Your task to perform on an android device: open a new tab in the chrome app Image 0: 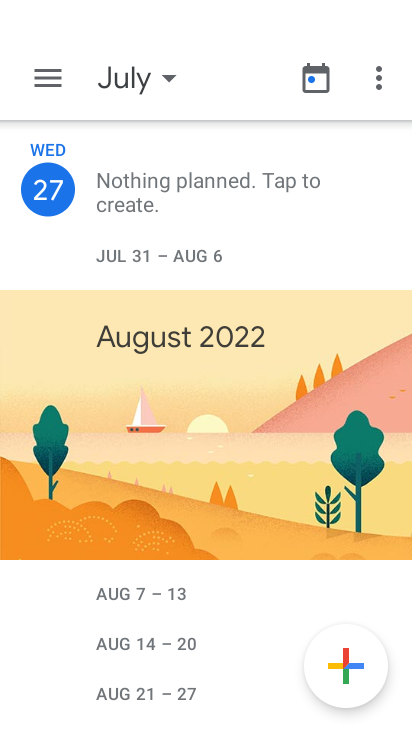
Step 0: press back button
Your task to perform on an android device: open a new tab in the chrome app Image 1: 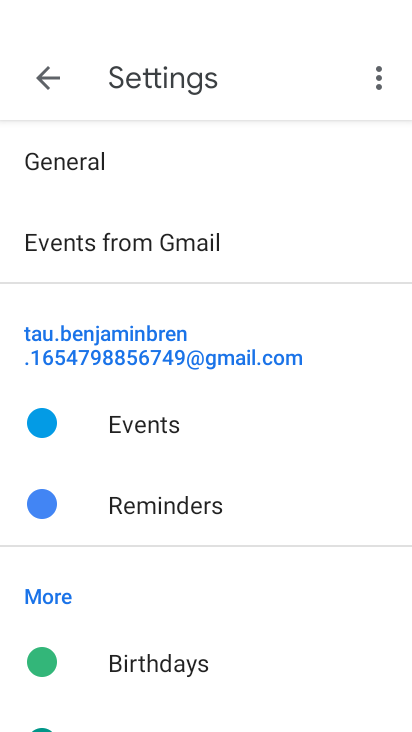
Step 1: press back button
Your task to perform on an android device: open a new tab in the chrome app Image 2: 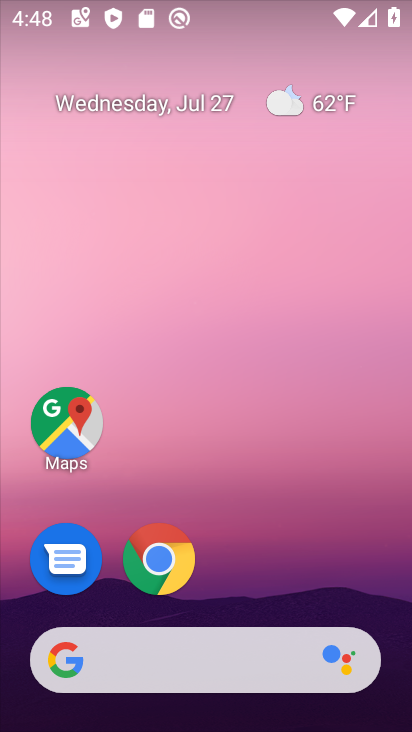
Step 2: click (155, 563)
Your task to perform on an android device: open a new tab in the chrome app Image 3: 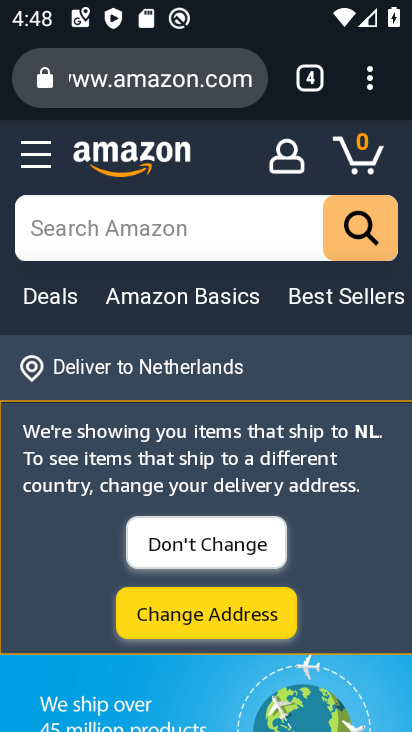
Step 3: click (318, 85)
Your task to perform on an android device: open a new tab in the chrome app Image 4: 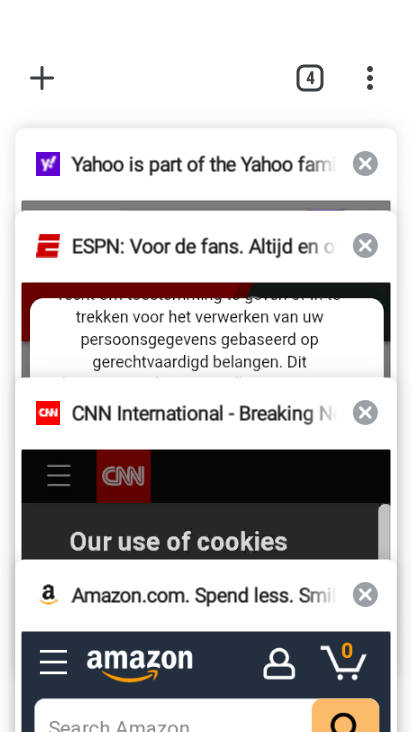
Step 4: click (25, 74)
Your task to perform on an android device: open a new tab in the chrome app Image 5: 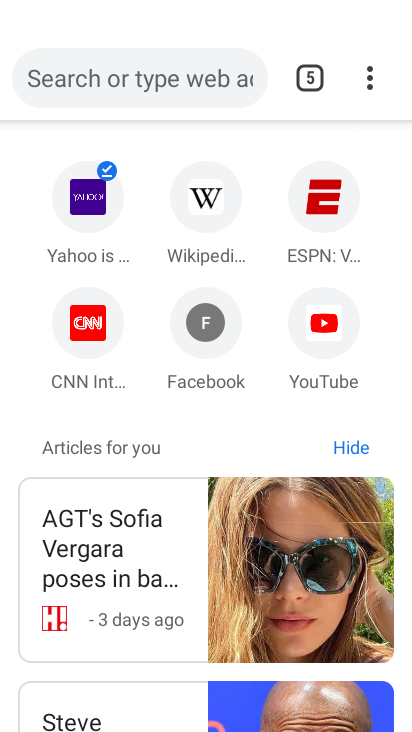
Step 5: task complete